Your task to perform on an android device: open app "Etsy: Buy & Sell Unique Items" (install if not already installed) Image 0: 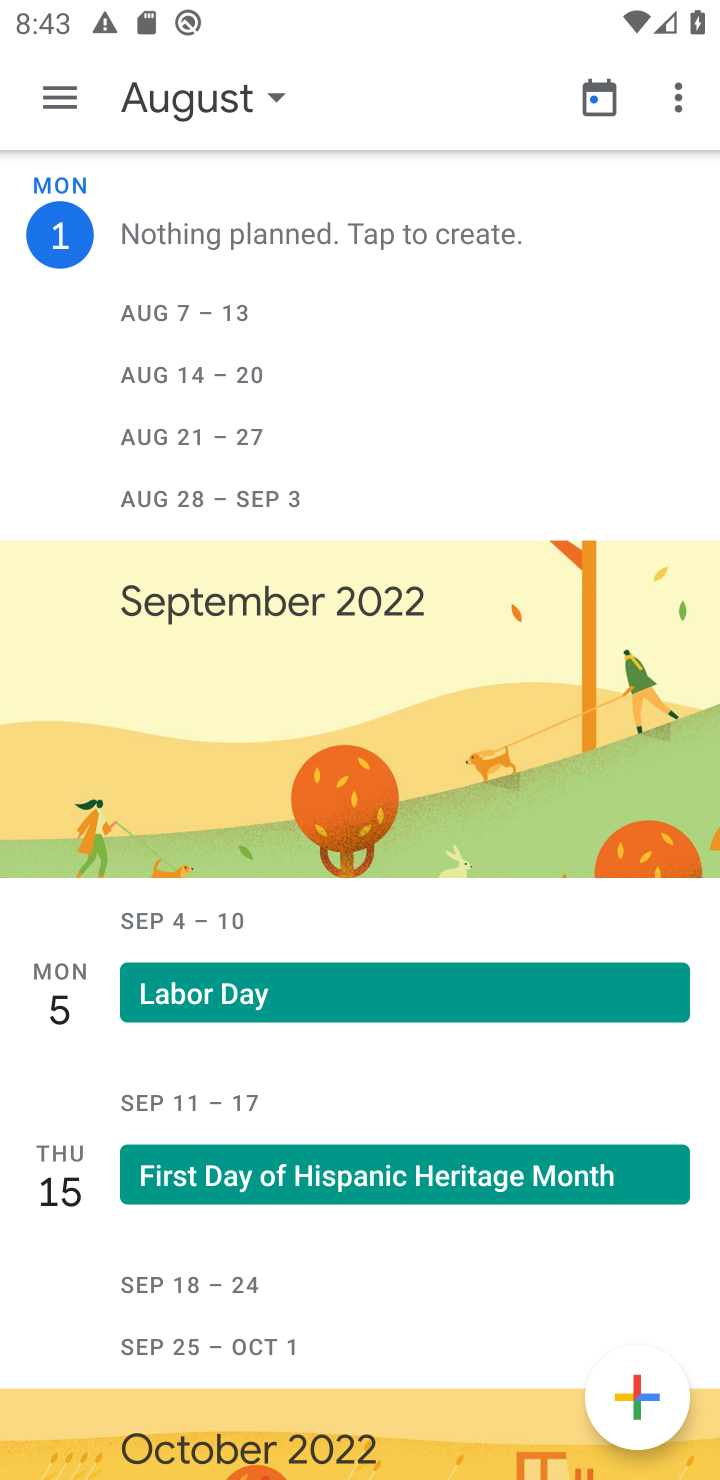
Step 0: press home button
Your task to perform on an android device: open app "Etsy: Buy & Sell Unique Items" (install if not already installed) Image 1: 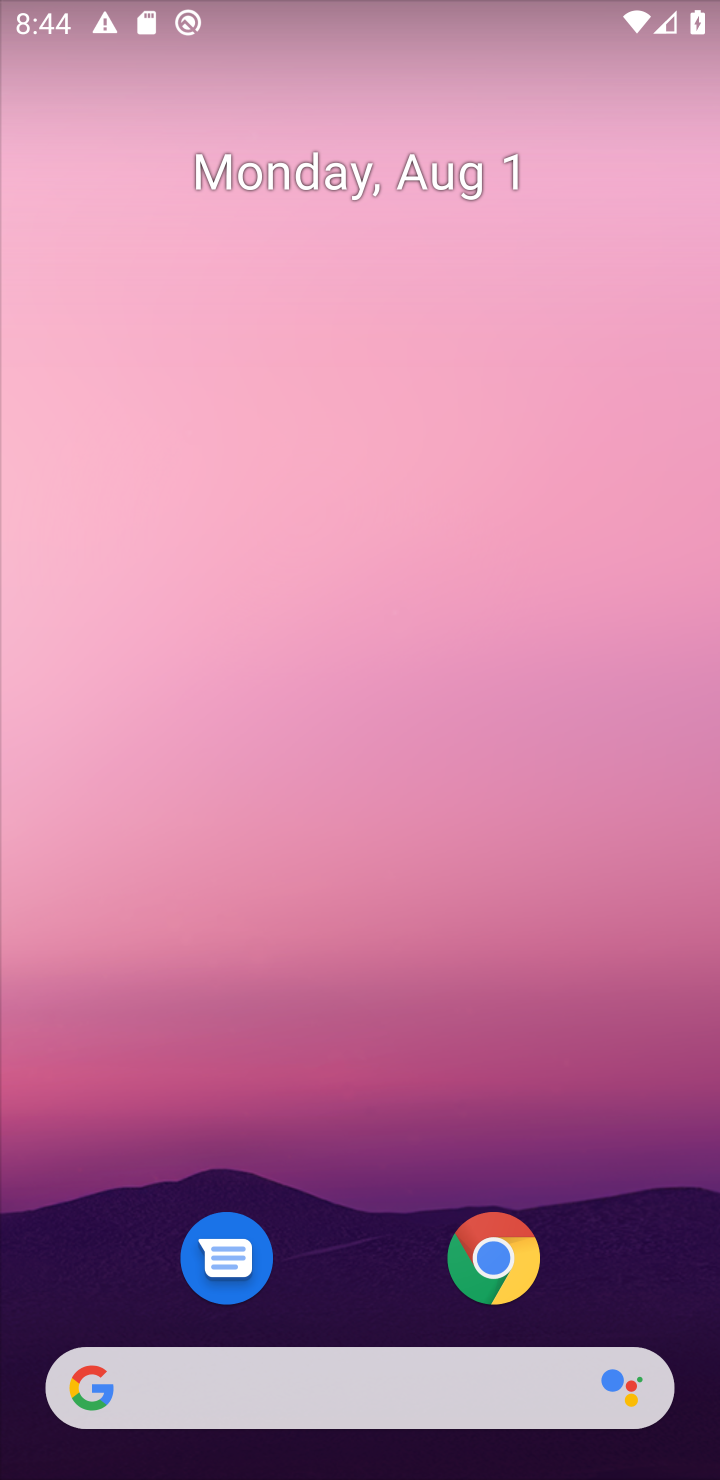
Step 1: drag from (316, 1217) to (269, 86)
Your task to perform on an android device: open app "Etsy: Buy & Sell Unique Items" (install if not already installed) Image 2: 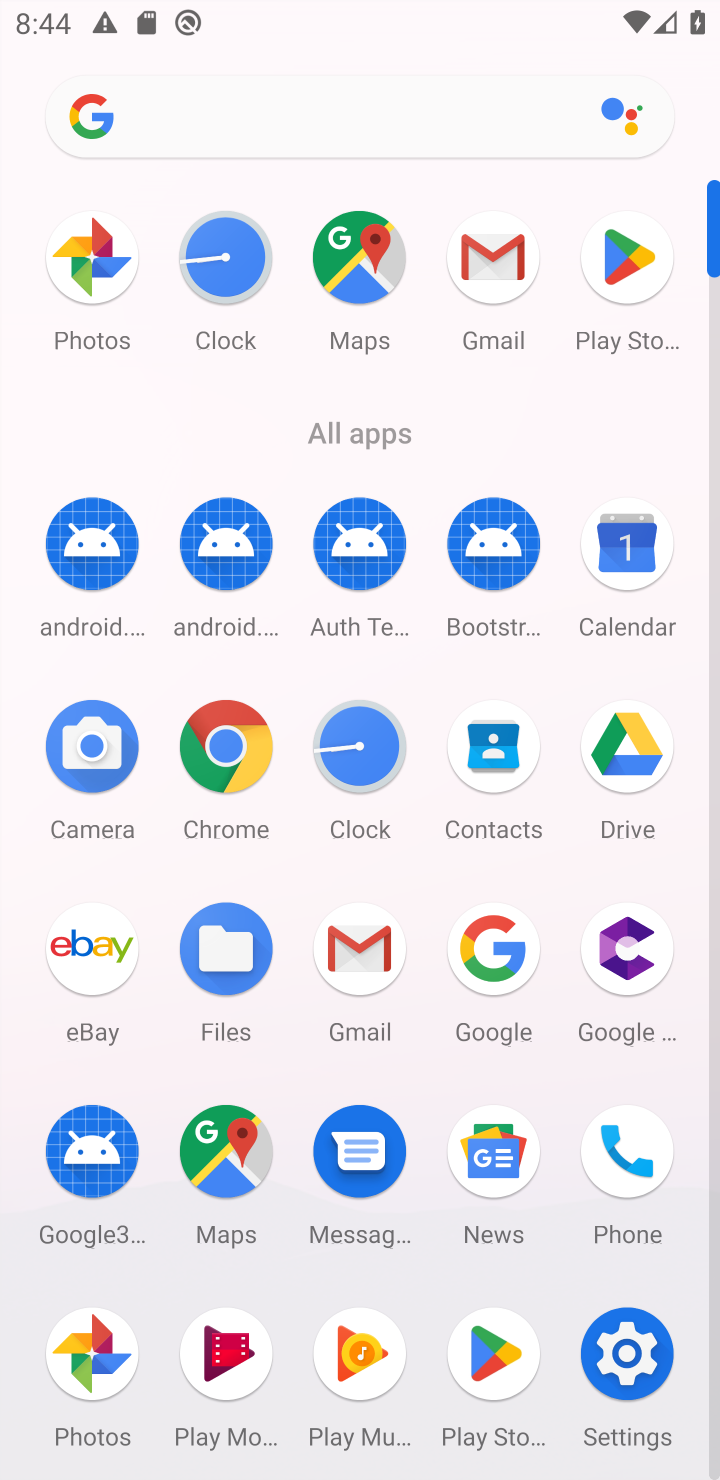
Step 2: click (640, 251)
Your task to perform on an android device: open app "Etsy: Buy & Sell Unique Items" (install if not already installed) Image 3: 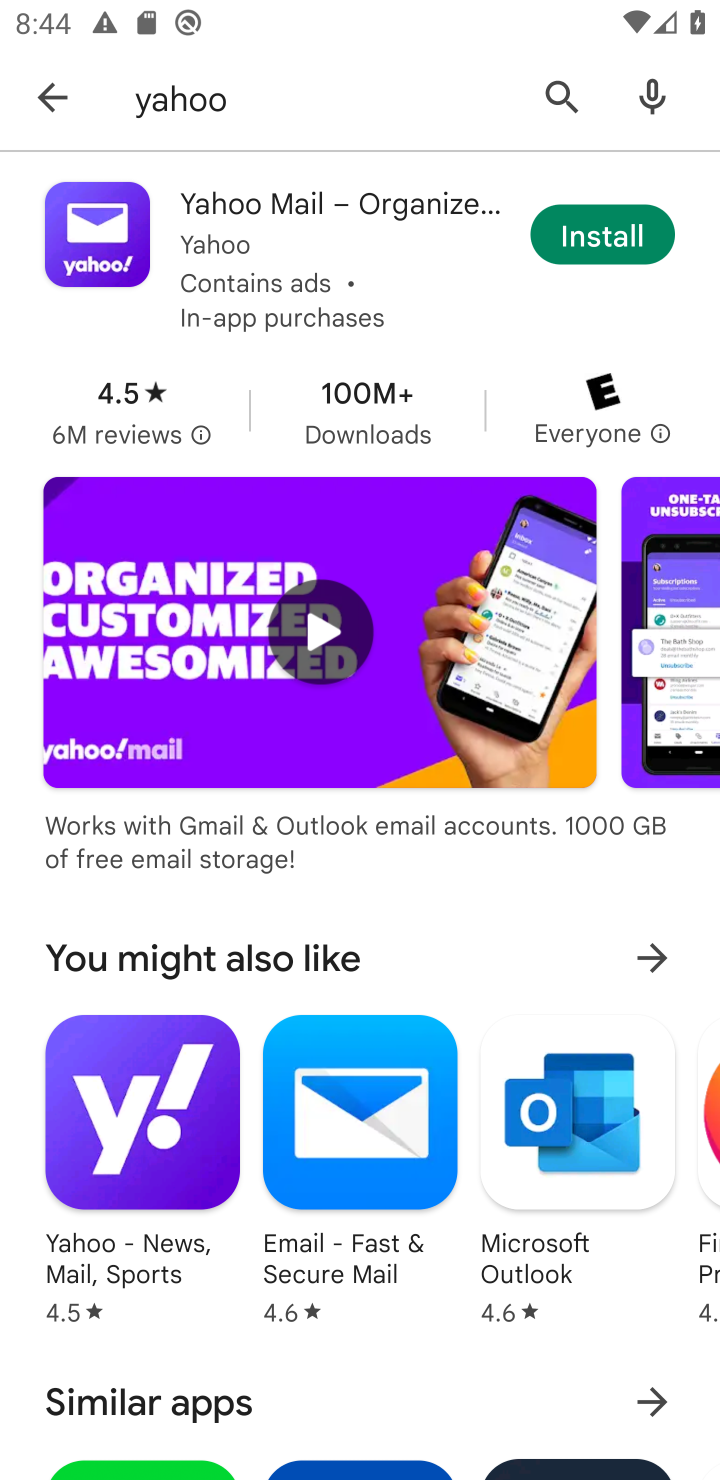
Step 3: click (41, 86)
Your task to perform on an android device: open app "Etsy: Buy & Sell Unique Items" (install if not already installed) Image 4: 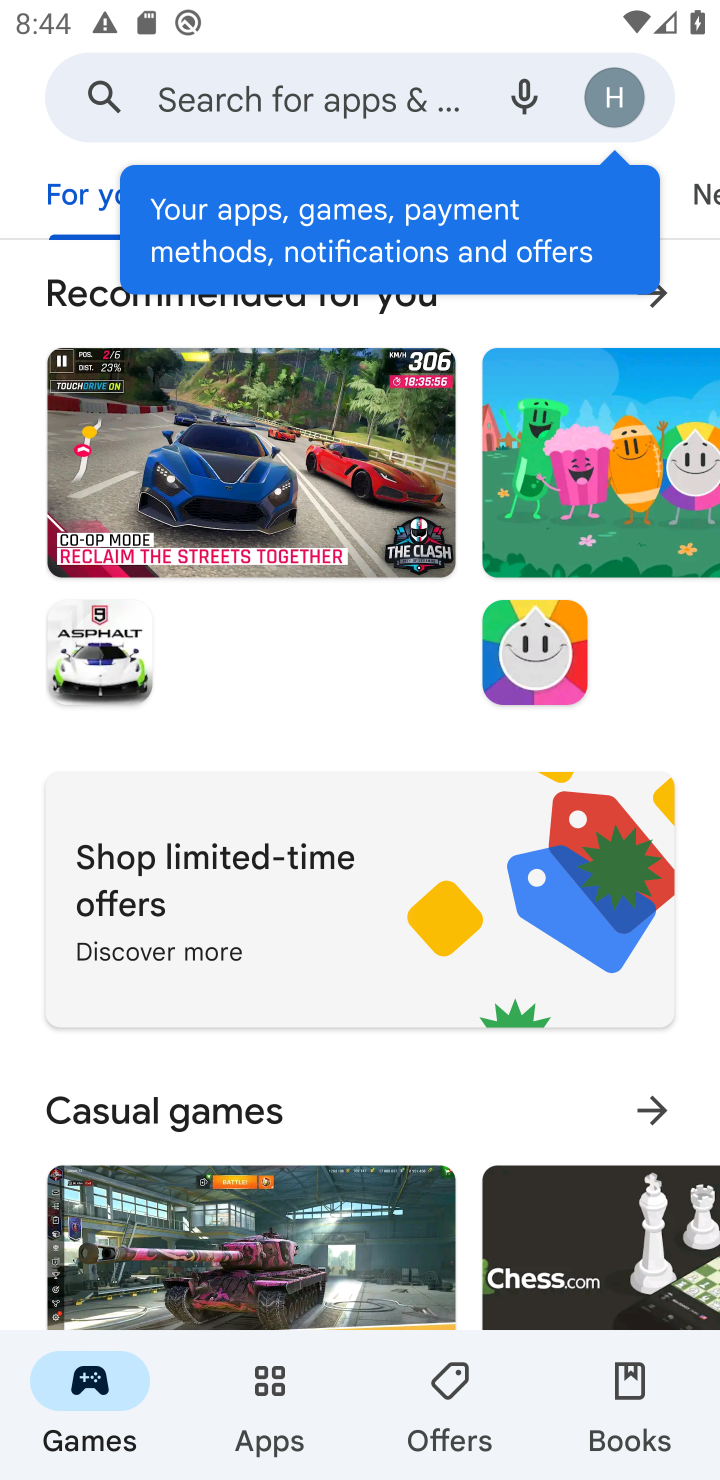
Step 4: click (240, 83)
Your task to perform on an android device: open app "Etsy: Buy & Sell Unique Items" (install if not already installed) Image 5: 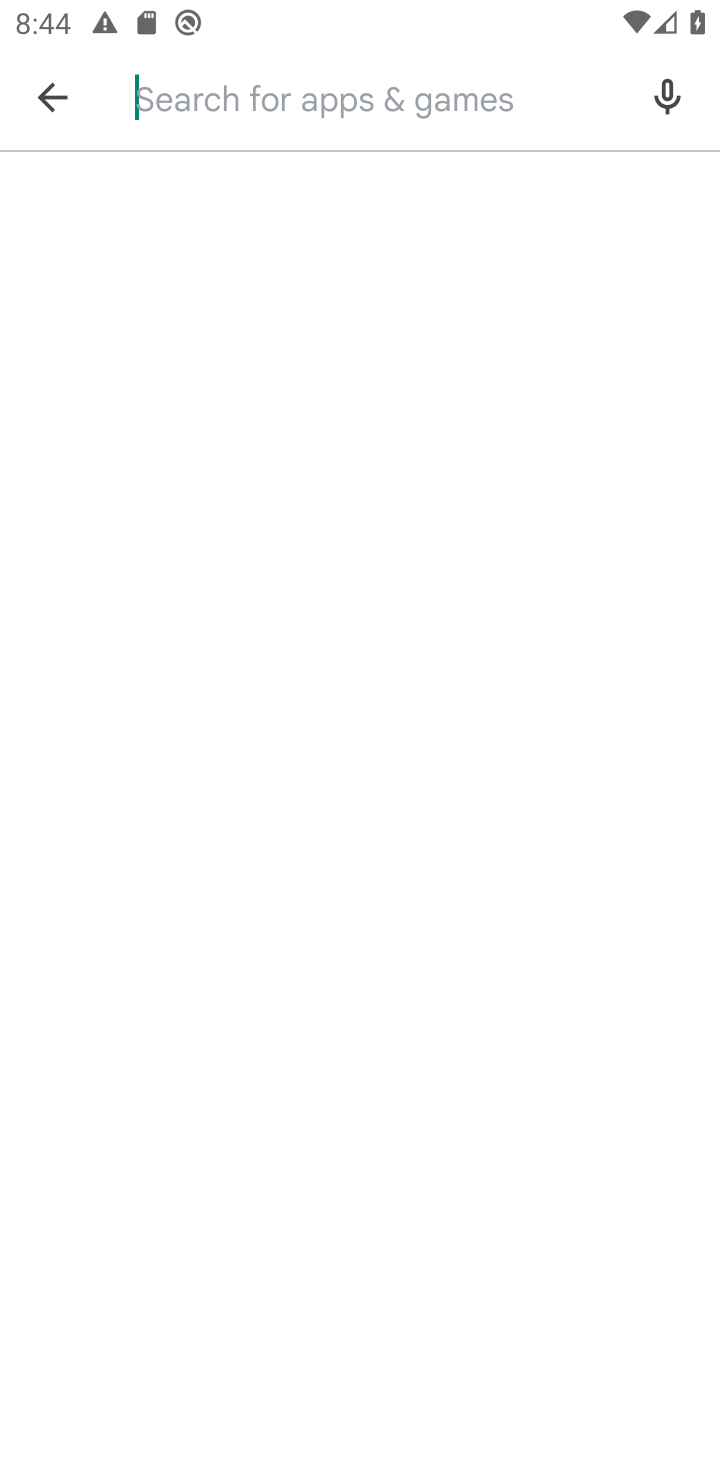
Step 5: click (240, 83)
Your task to perform on an android device: open app "Etsy: Buy & Sell Unique Items" (install if not already installed) Image 6: 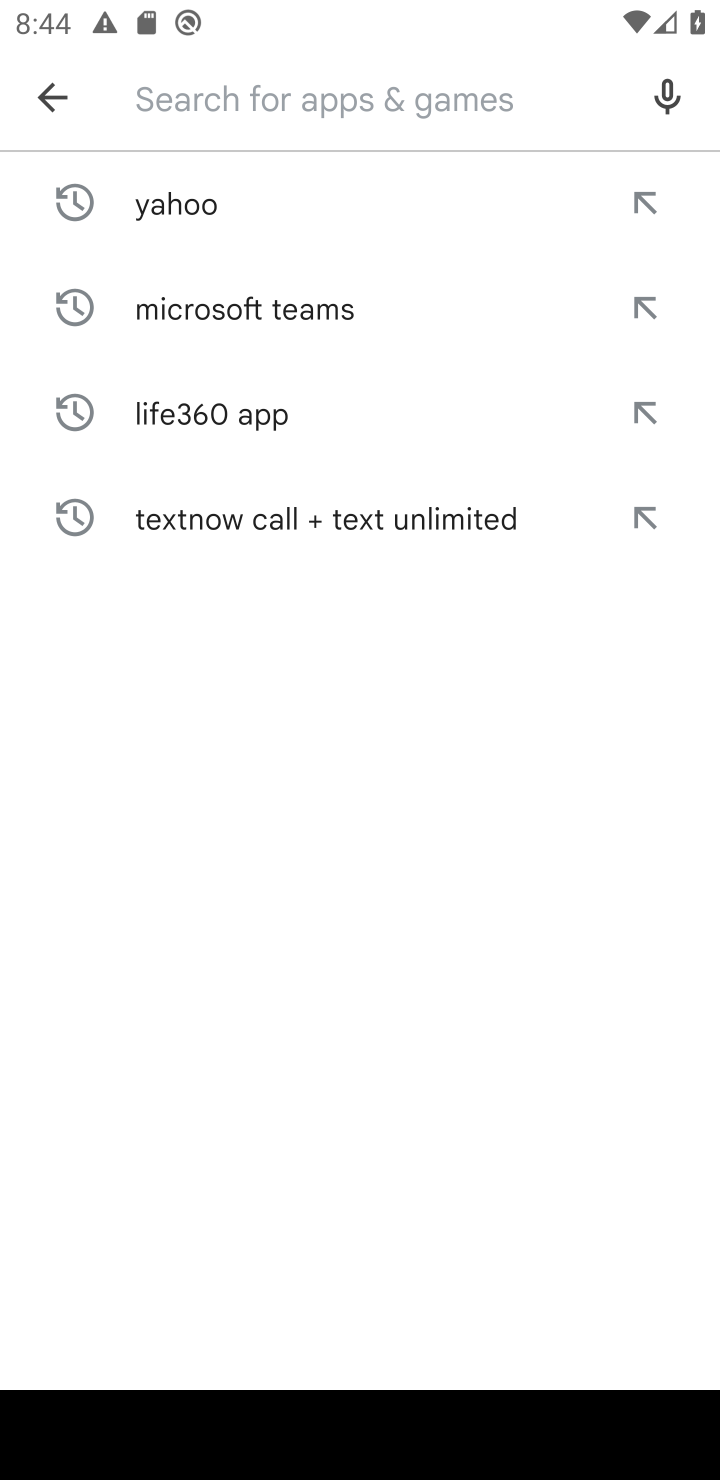
Step 6: type ""Etsy: Buy & Sell Unique Items"
Your task to perform on an android device: open app "Etsy: Buy & Sell Unique Items" (install if not already installed) Image 7: 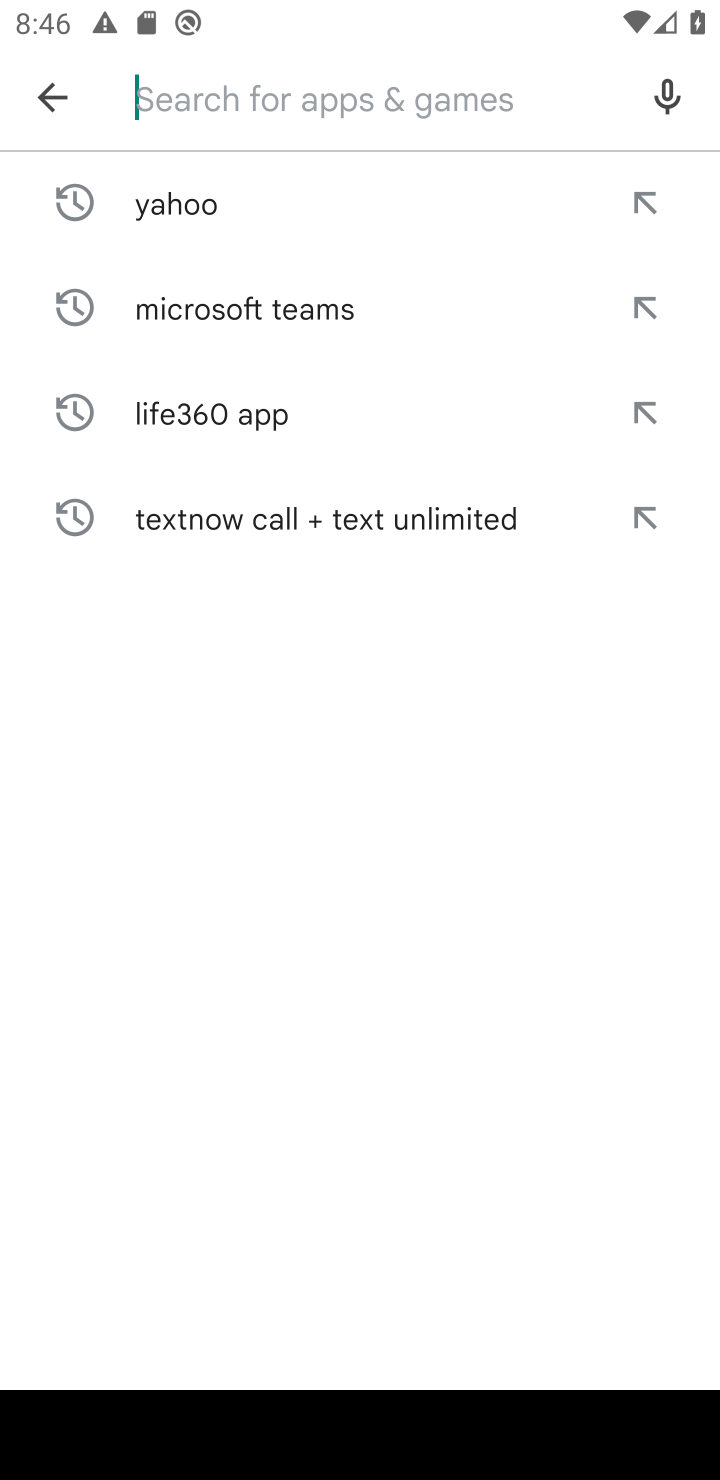
Step 7: type "Etsy: Buy & Sell Unique Items"
Your task to perform on an android device: open app "Etsy: Buy & Sell Unique Items" (install if not already installed) Image 8: 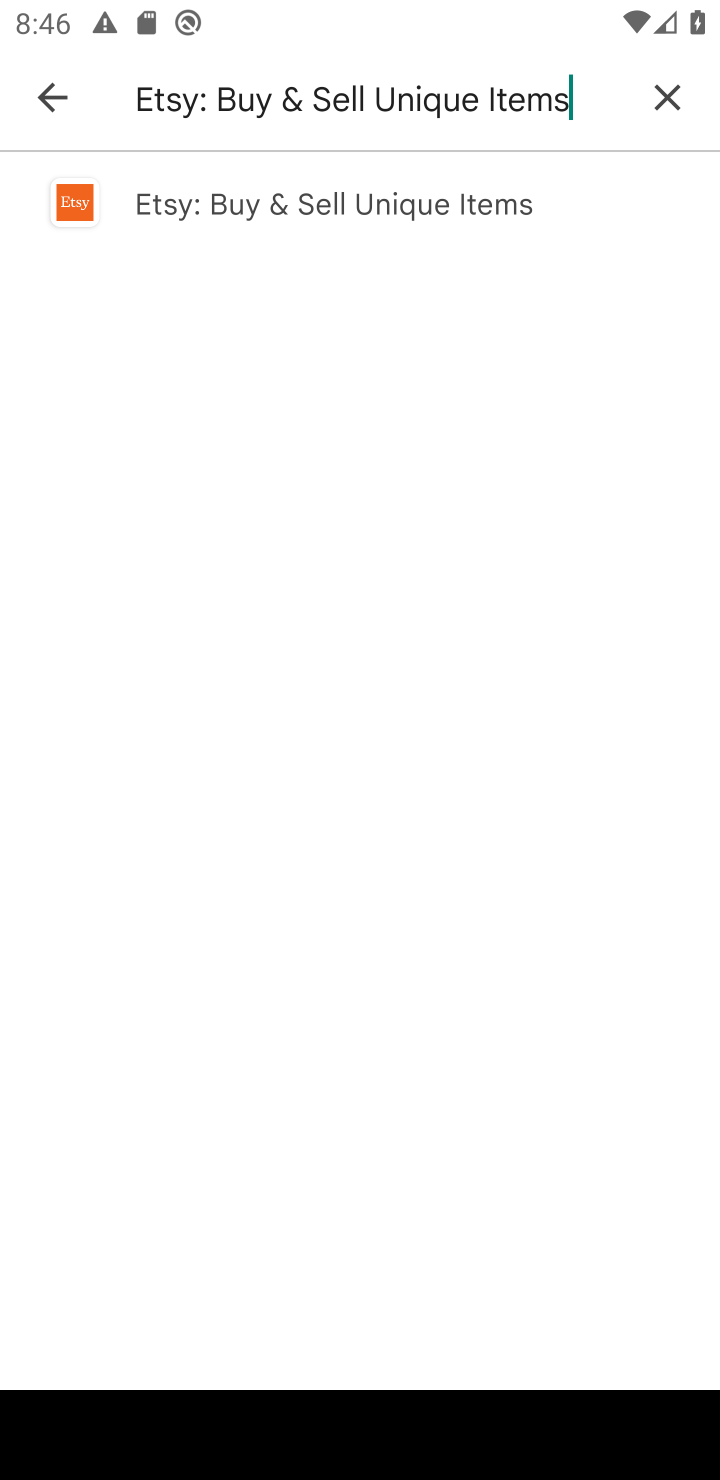
Step 8: click (213, 208)
Your task to perform on an android device: open app "Etsy: Buy & Sell Unique Items" (install if not already installed) Image 9: 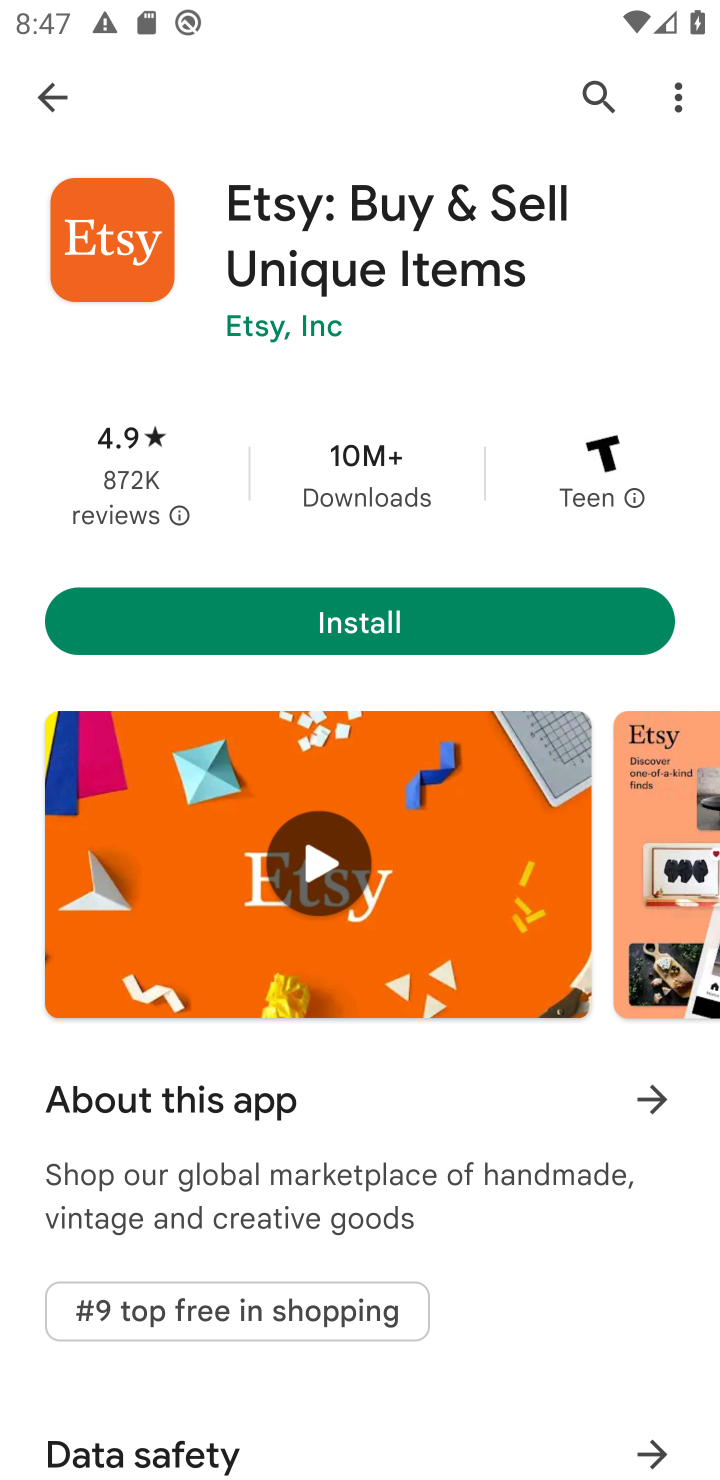
Step 9: click (487, 603)
Your task to perform on an android device: open app "Etsy: Buy & Sell Unique Items" (install if not already installed) Image 10: 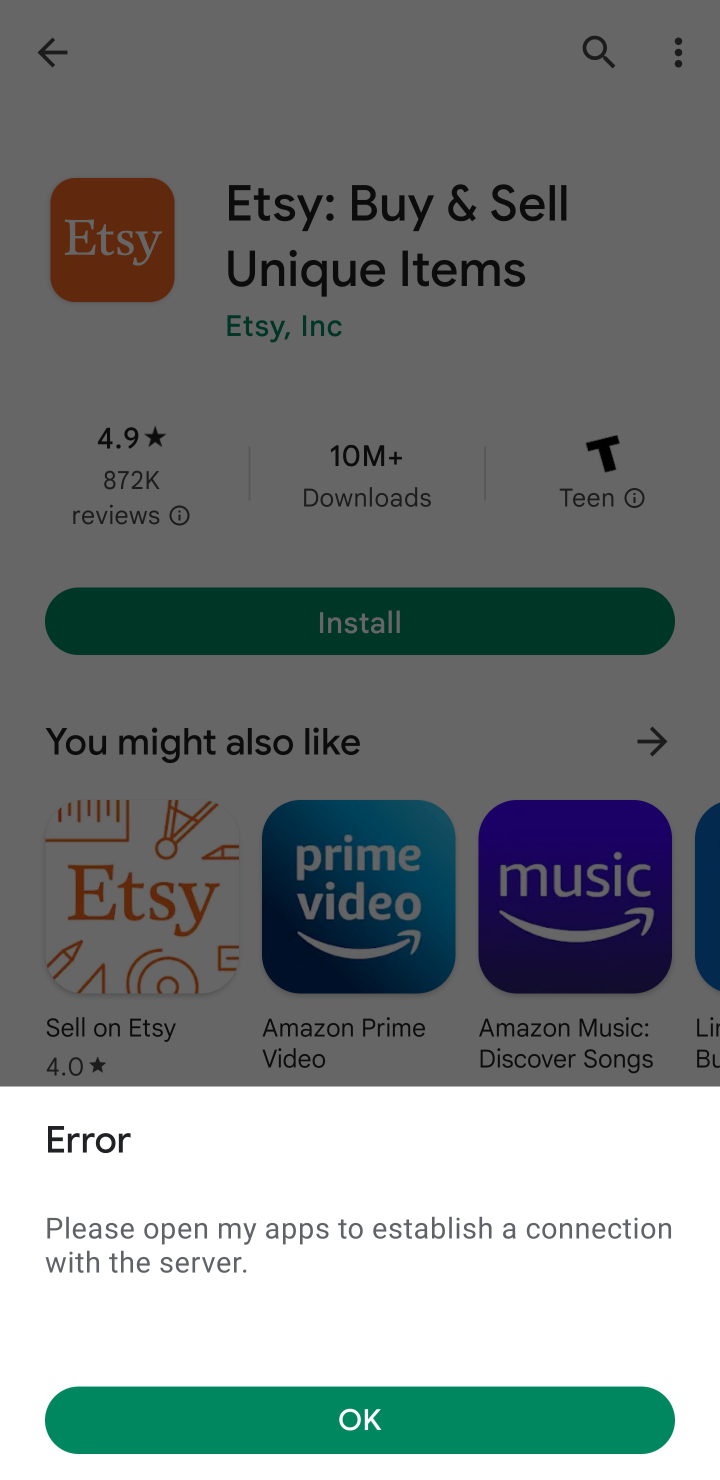
Step 10: task complete